Your task to perform on an android device: Open network settings Image 0: 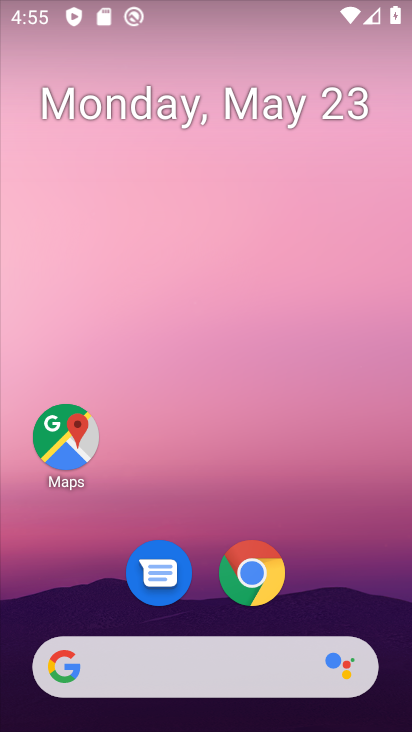
Step 0: drag from (318, 587) to (258, 157)
Your task to perform on an android device: Open network settings Image 1: 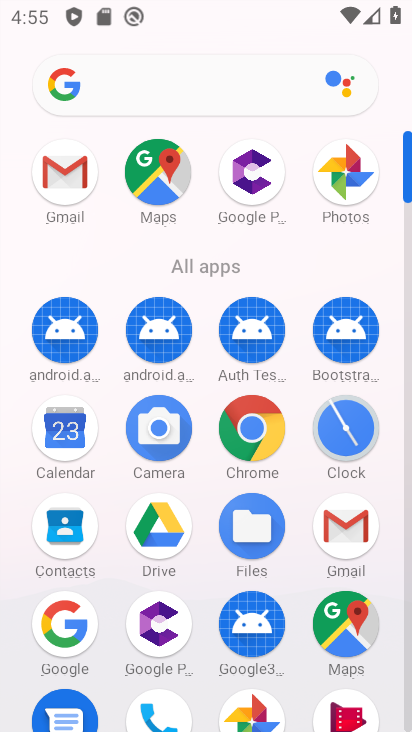
Step 1: drag from (118, 624) to (104, 507)
Your task to perform on an android device: Open network settings Image 2: 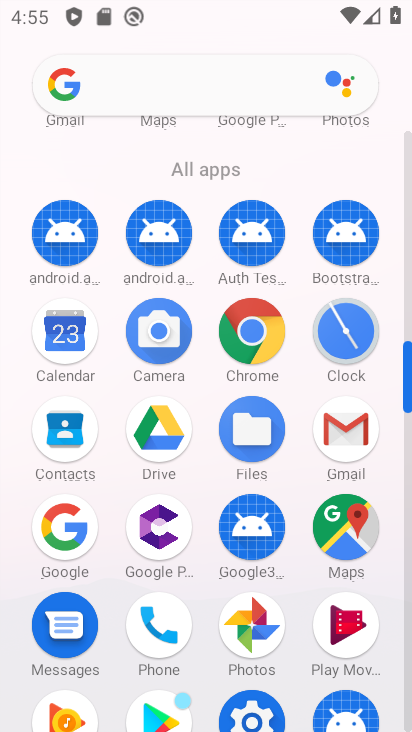
Step 2: drag from (214, 679) to (191, 493)
Your task to perform on an android device: Open network settings Image 3: 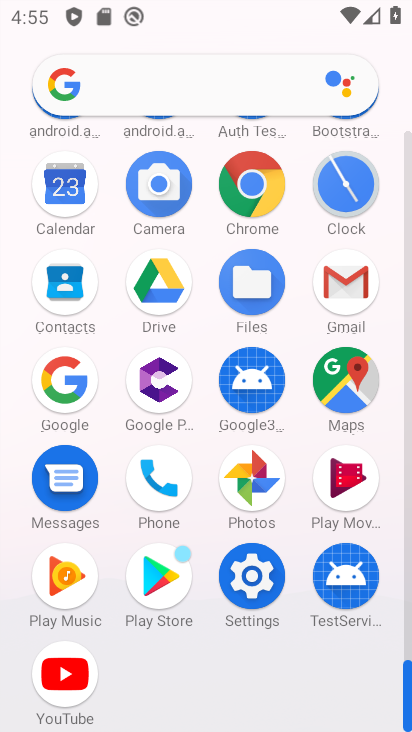
Step 3: click (247, 574)
Your task to perform on an android device: Open network settings Image 4: 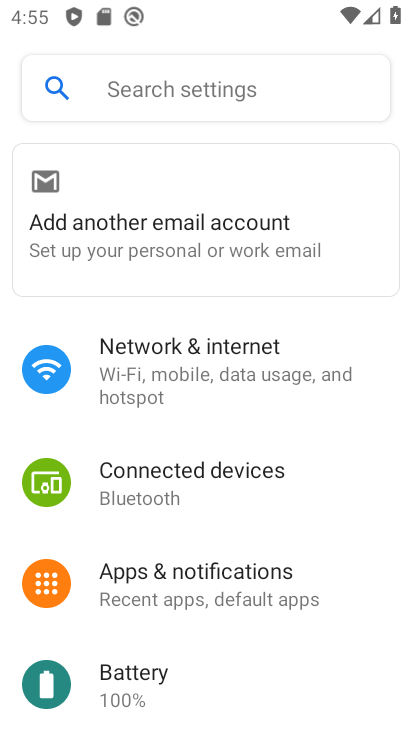
Step 4: click (195, 354)
Your task to perform on an android device: Open network settings Image 5: 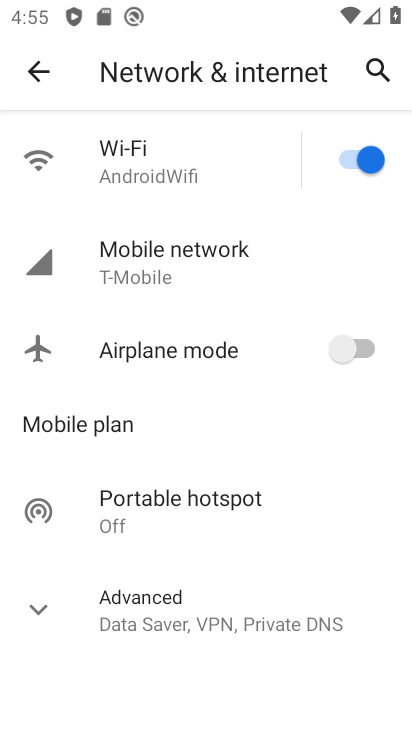
Step 5: click (191, 260)
Your task to perform on an android device: Open network settings Image 6: 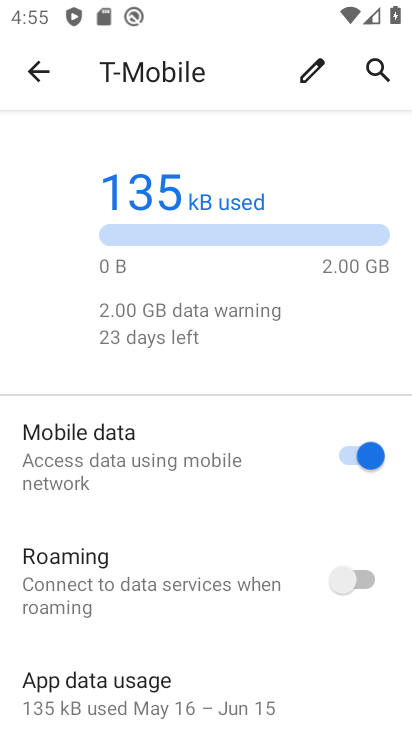
Step 6: task complete